Your task to perform on an android device: Is it going to rain this weekend? Image 0: 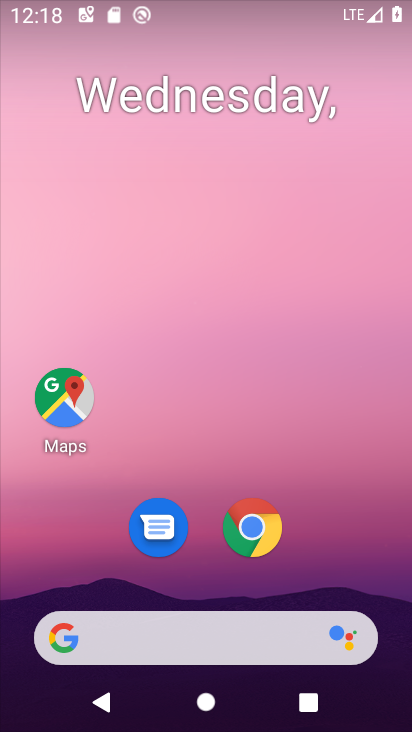
Step 0: drag from (212, 654) to (275, 11)
Your task to perform on an android device: Is it going to rain this weekend? Image 1: 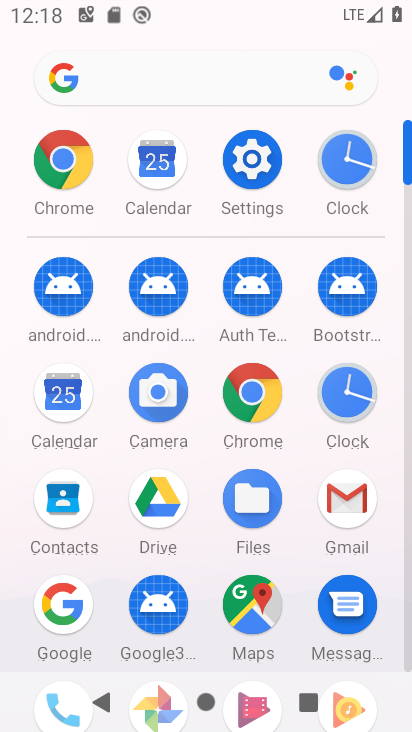
Step 1: press home button
Your task to perform on an android device: Is it going to rain this weekend? Image 2: 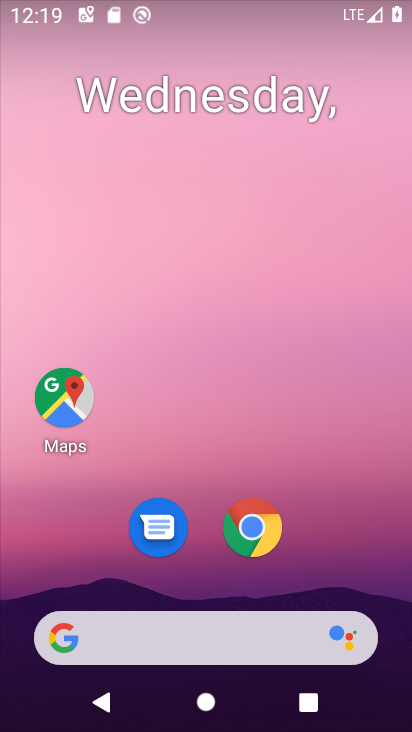
Step 2: drag from (142, 253) to (408, 208)
Your task to perform on an android device: Is it going to rain this weekend? Image 3: 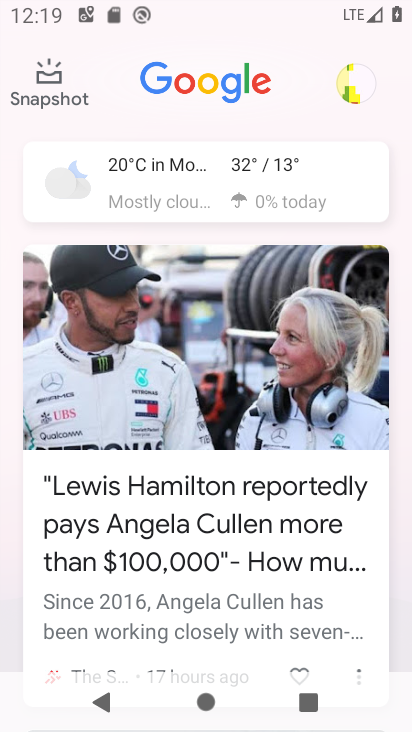
Step 3: click (169, 176)
Your task to perform on an android device: Is it going to rain this weekend? Image 4: 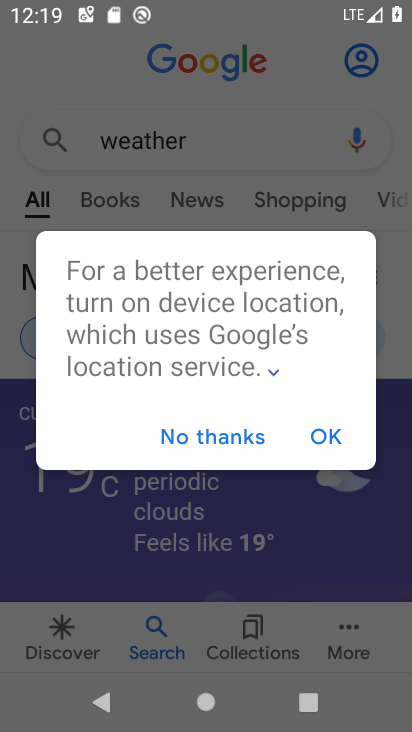
Step 4: click (212, 438)
Your task to perform on an android device: Is it going to rain this weekend? Image 5: 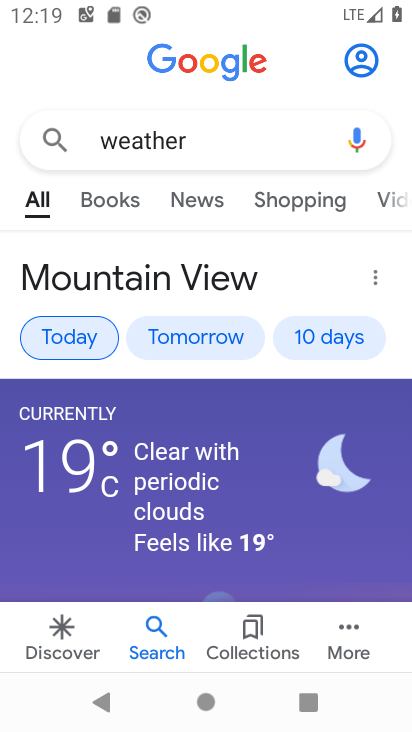
Step 5: click (316, 340)
Your task to perform on an android device: Is it going to rain this weekend? Image 6: 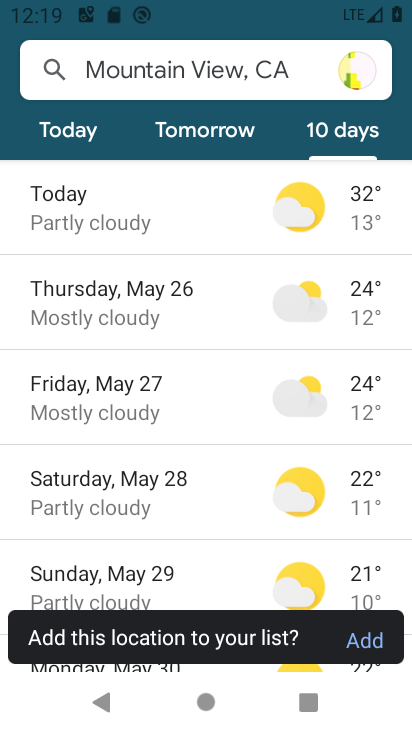
Step 6: task complete